Your task to perform on an android device: Go to Yahoo.com Image 0: 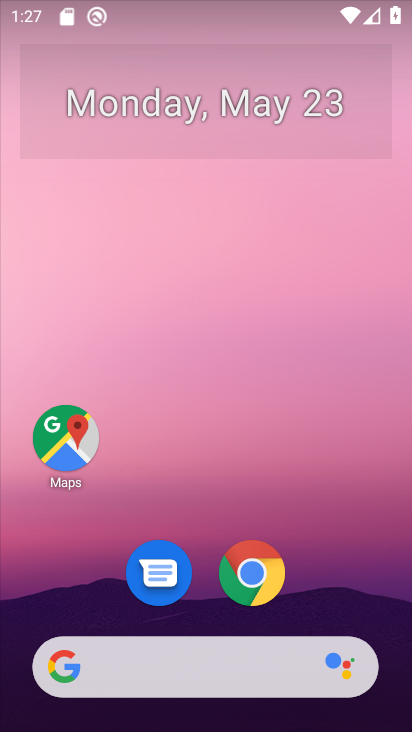
Step 0: click (262, 576)
Your task to perform on an android device: Go to Yahoo.com Image 1: 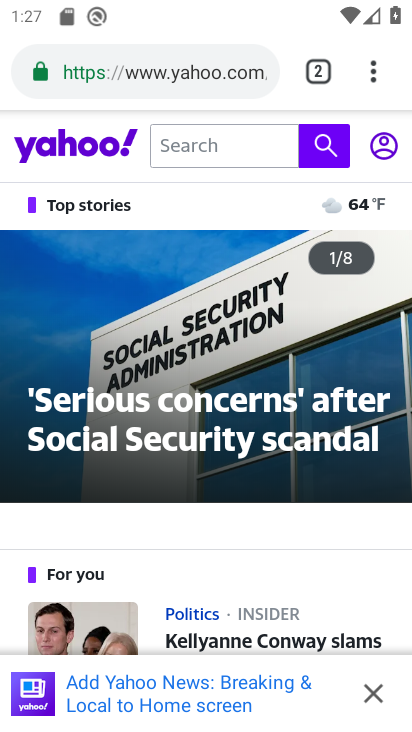
Step 1: task complete